Your task to perform on an android device: check the backup settings in the google photos Image 0: 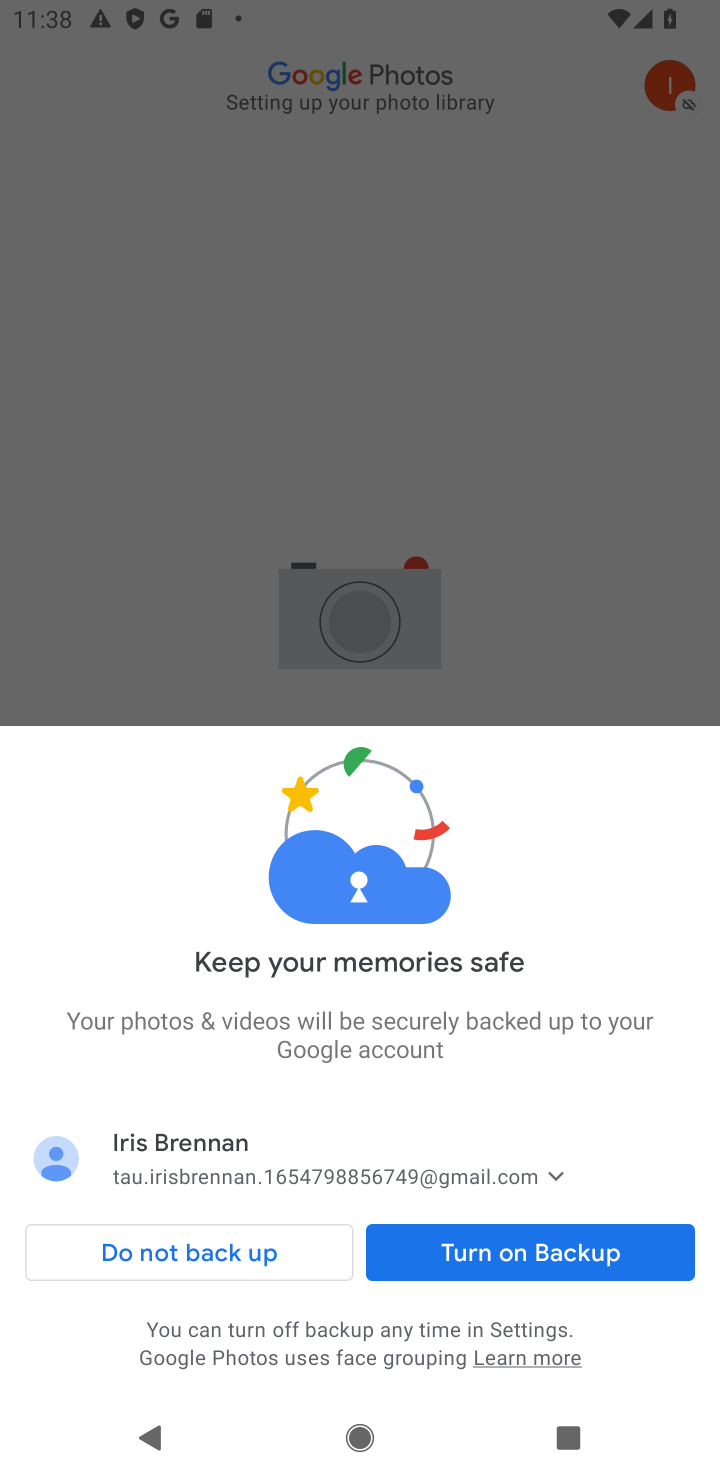
Step 0: click (212, 1243)
Your task to perform on an android device: check the backup settings in the google photos Image 1: 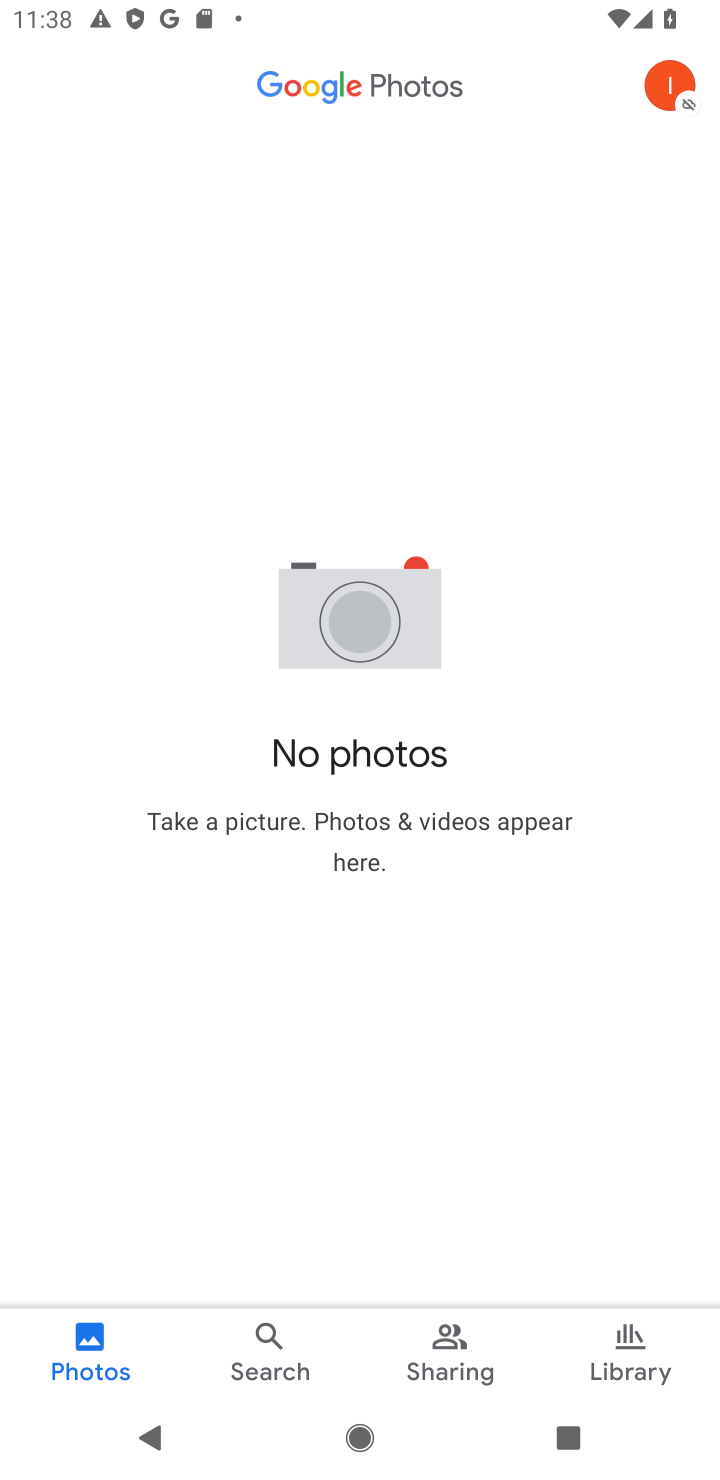
Step 1: click (618, 1343)
Your task to perform on an android device: check the backup settings in the google photos Image 2: 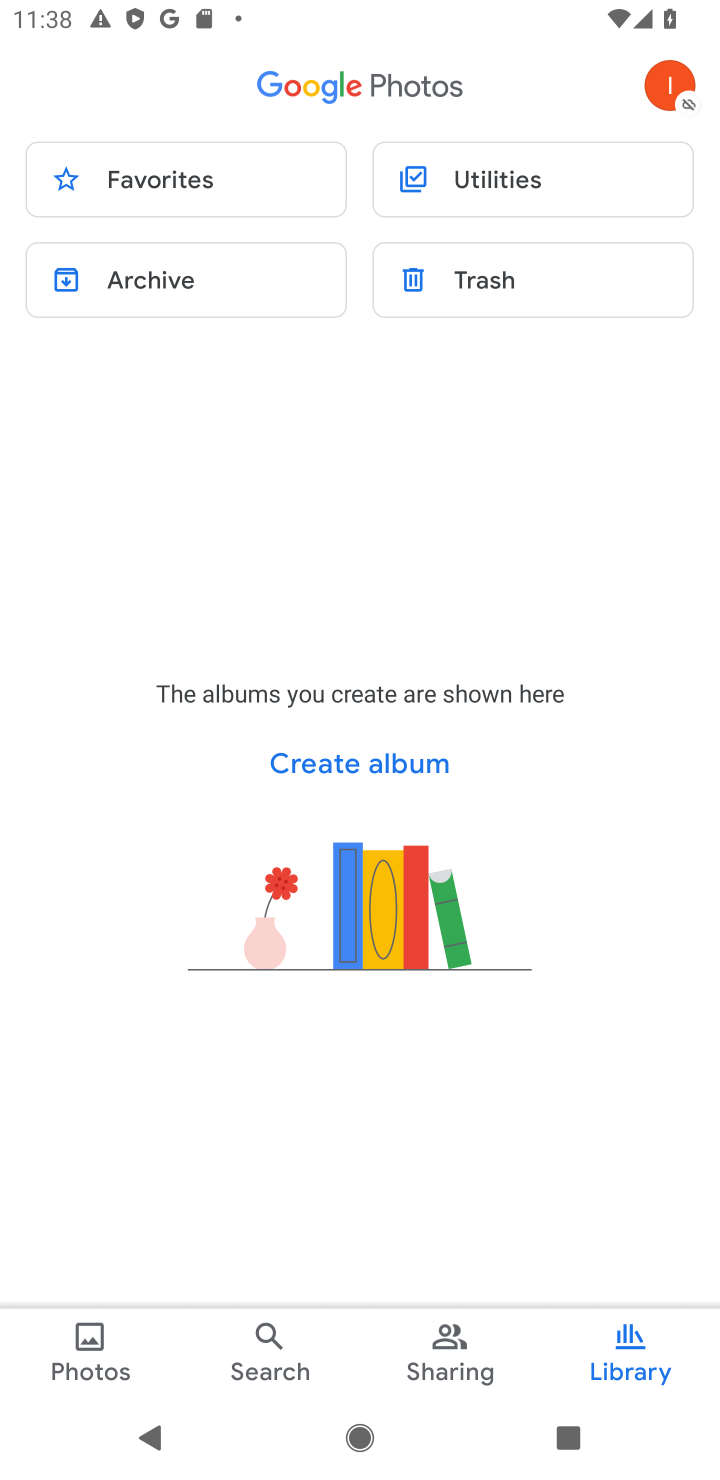
Step 2: click (671, 79)
Your task to perform on an android device: check the backup settings in the google photos Image 3: 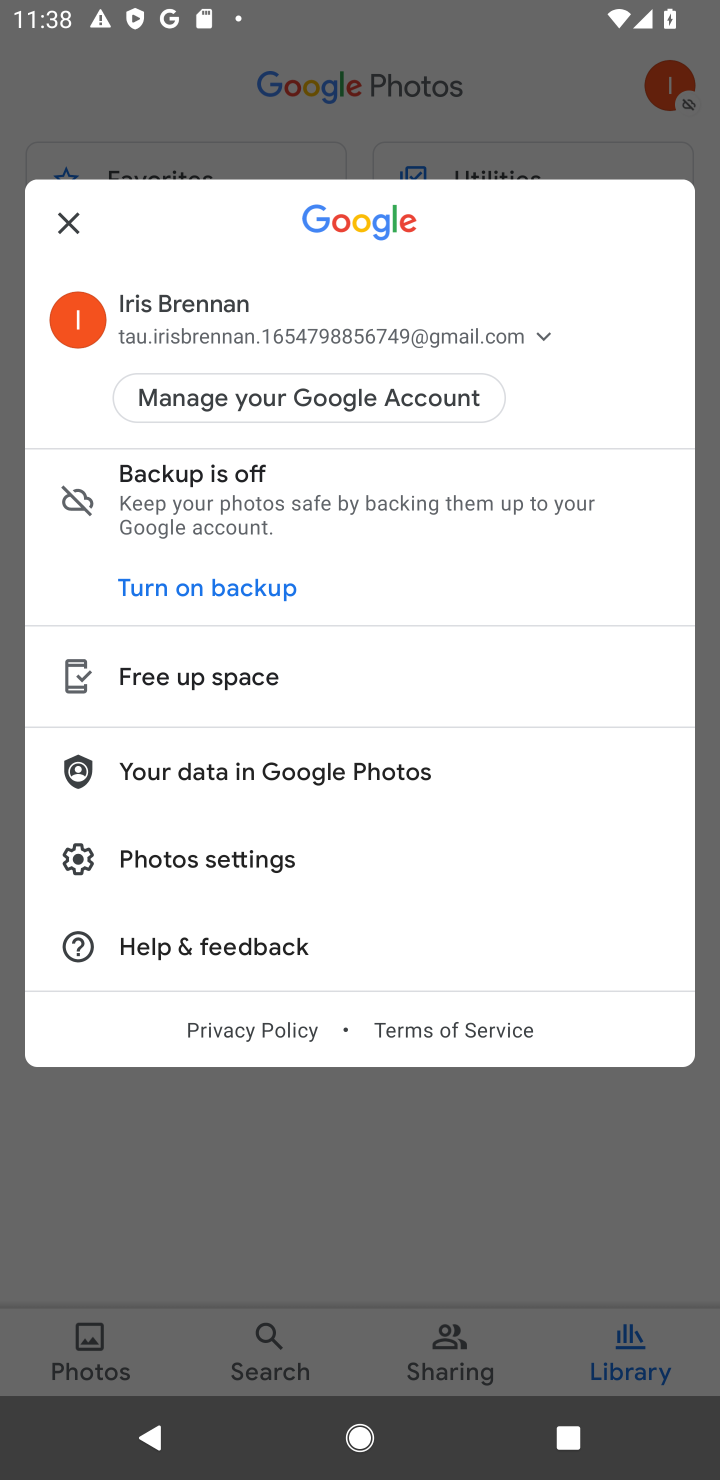
Step 3: click (235, 483)
Your task to perform on an android device: check the backup settings in the google photos Image 4: 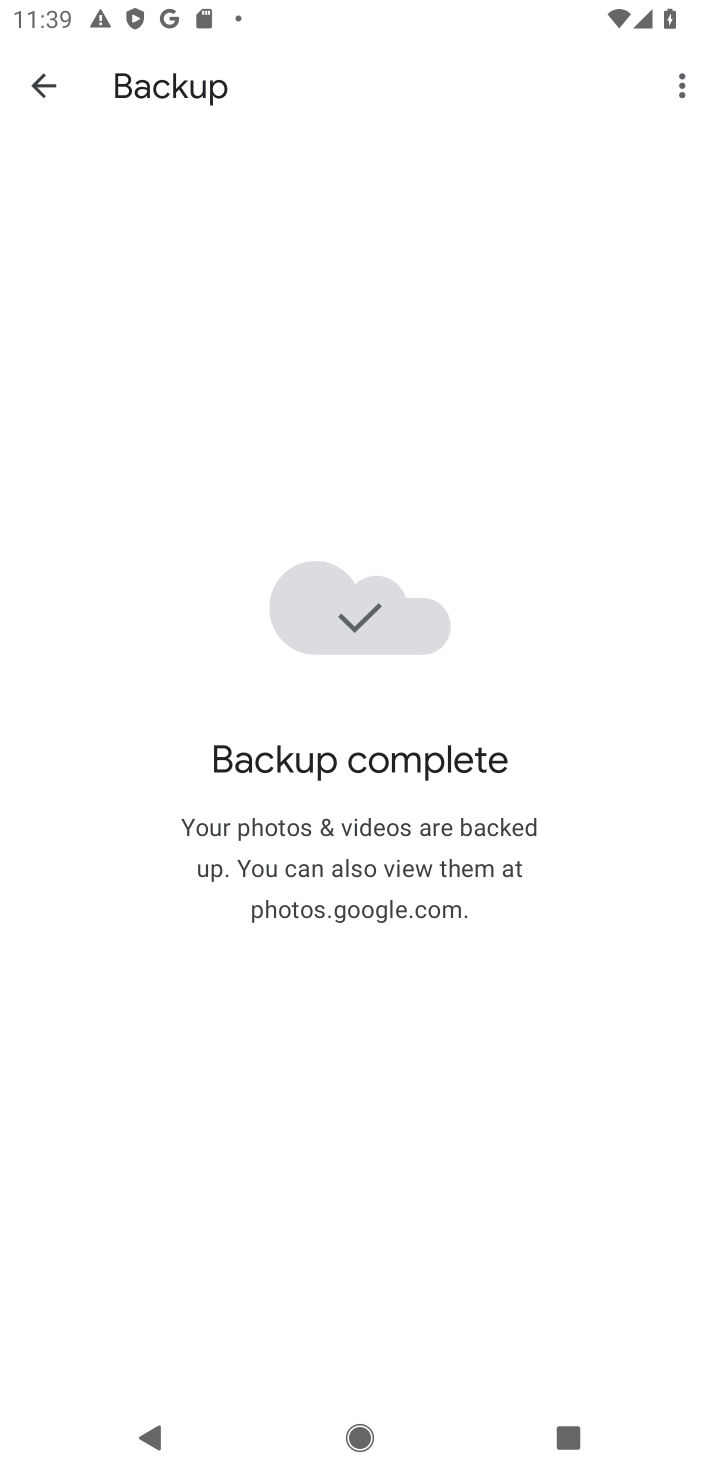
Step 4: task complete